Your task to perform on an android device: Show me the alarms in the clock app Image 0: 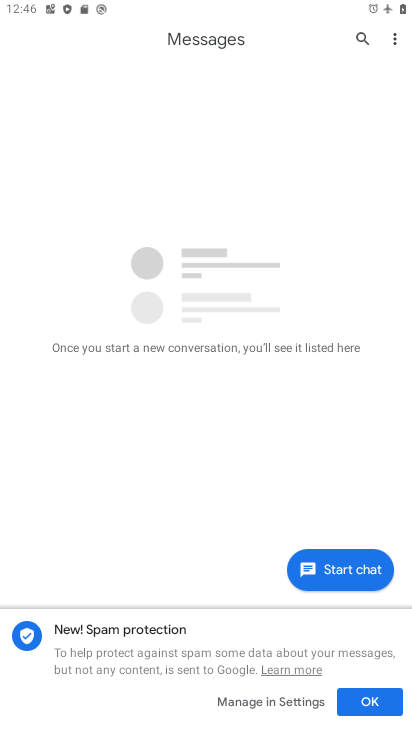
Step 0: press home button
Your task to perform on an android device: Show me the alarms in the clock app Image 1: 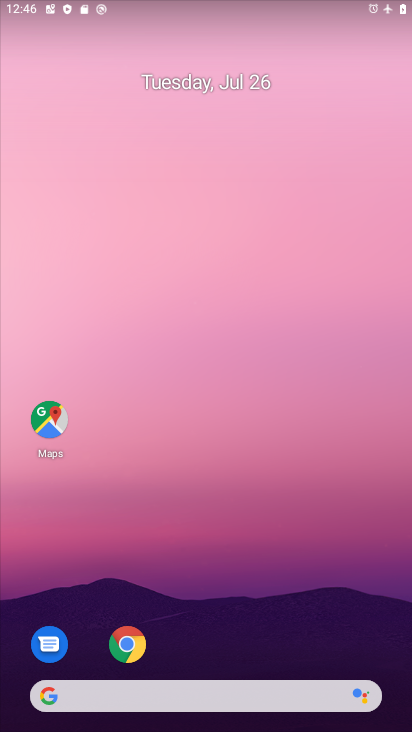
Step 1: drag from (203, 668) to (284, 129)
Your task to perform on an android device: Show me the alarms in the clock app Image 2: 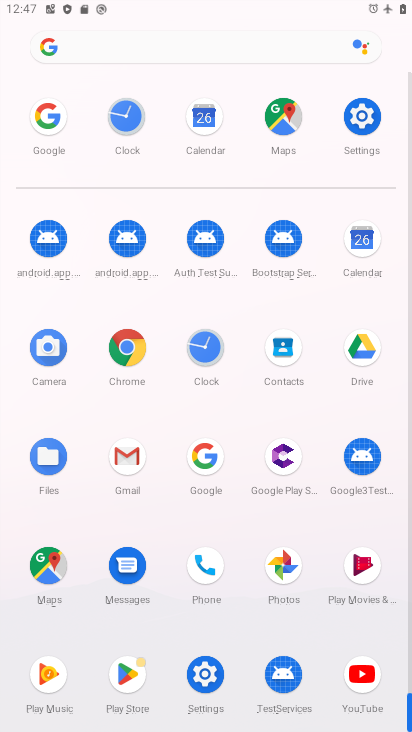
Step 2: click (132, 364)
Your task to perform on an android device: Show me the alarms in the clock app Image 3: 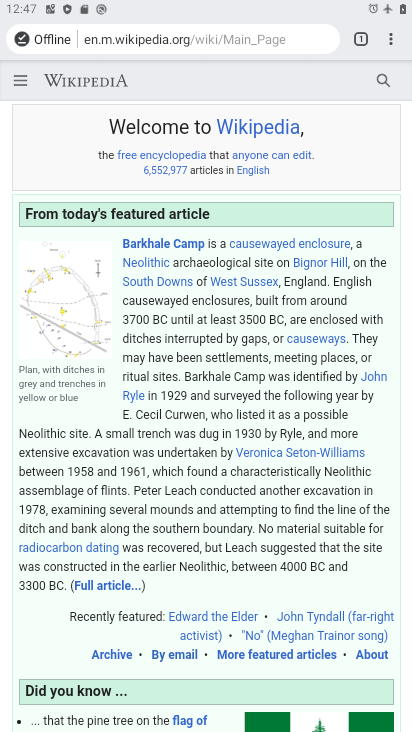
Step 3: press home button
Your task to perform on an android device: Show me the alarms in the clock app Image 4: 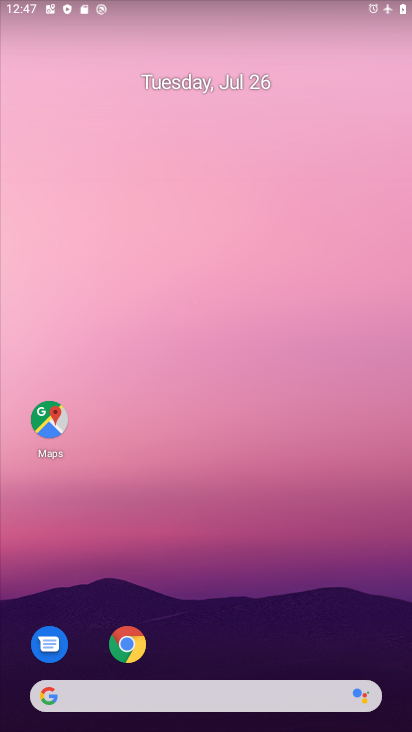
Step 4: drag from (219, 659) to (288, 179)
Your task to perform on an android device: Show me the alarms in the clock app Image 5: 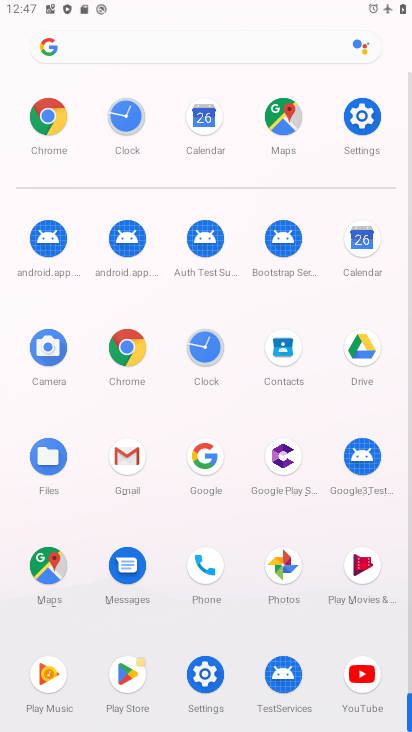
Step 5: click (196, 362)
Your task to perform on an android device: Show me the alarms in the clock app Image 6: 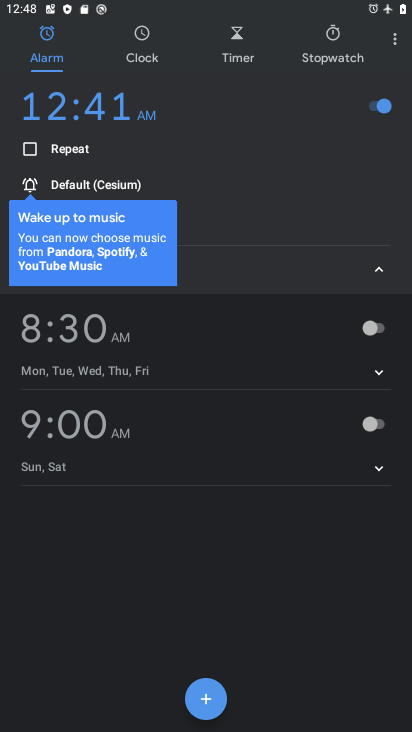
Step 6: task complete